Your task to perform on an android device: Go to Android settings Image 0: 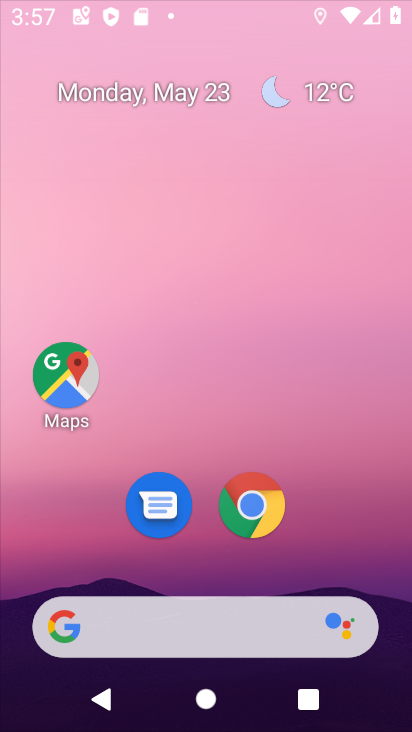
Step 0: click (70, 351)
Your task to perform on an android device: Go to Android settings Image 1: 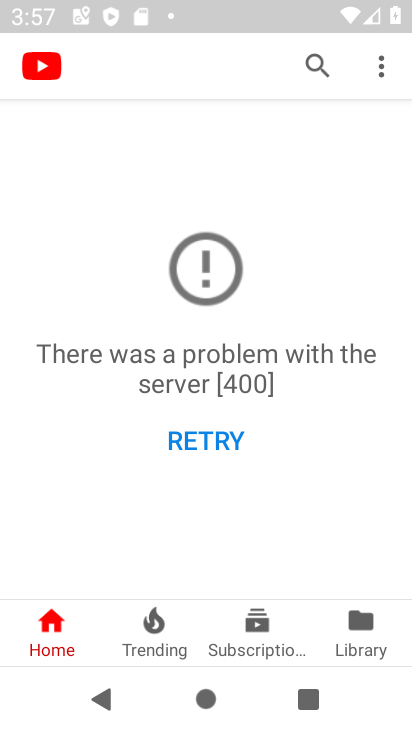
Step 1: press home button
Your task to perform on an android device: Go to Android settings Image 2: 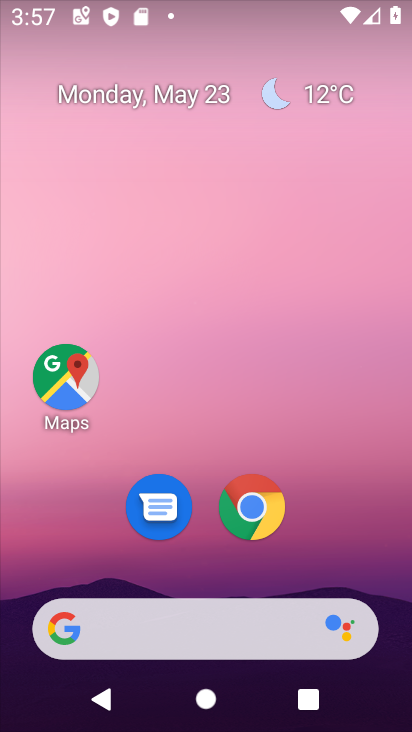
Step 2: drag from (199, 544) to (190, 103)
Your task to perform on an android device: Go to Android settings Image 3: 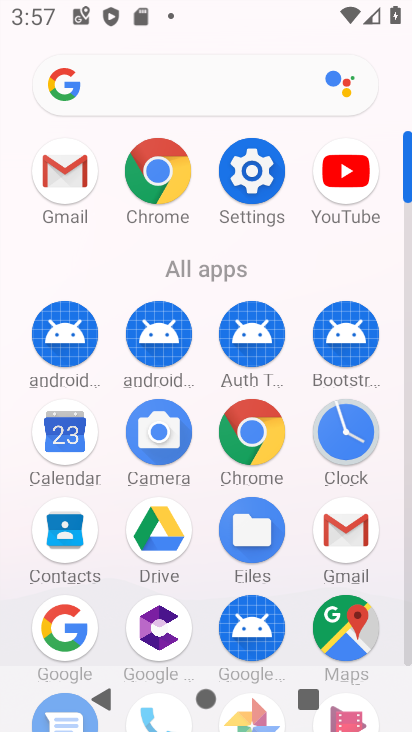
Step 3: click (265, 155)
Your task to perform on an android device: Go to Android settings Image 4: 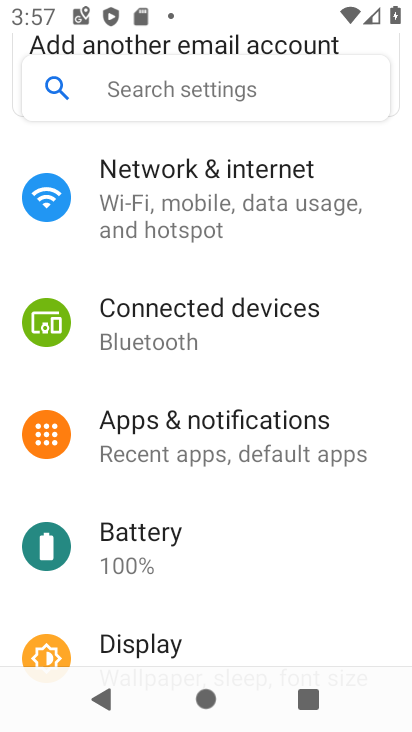
Step 4: task complete